Your task to perform on an android device: Search for the new Apple Watch on Best Buy Image 0: 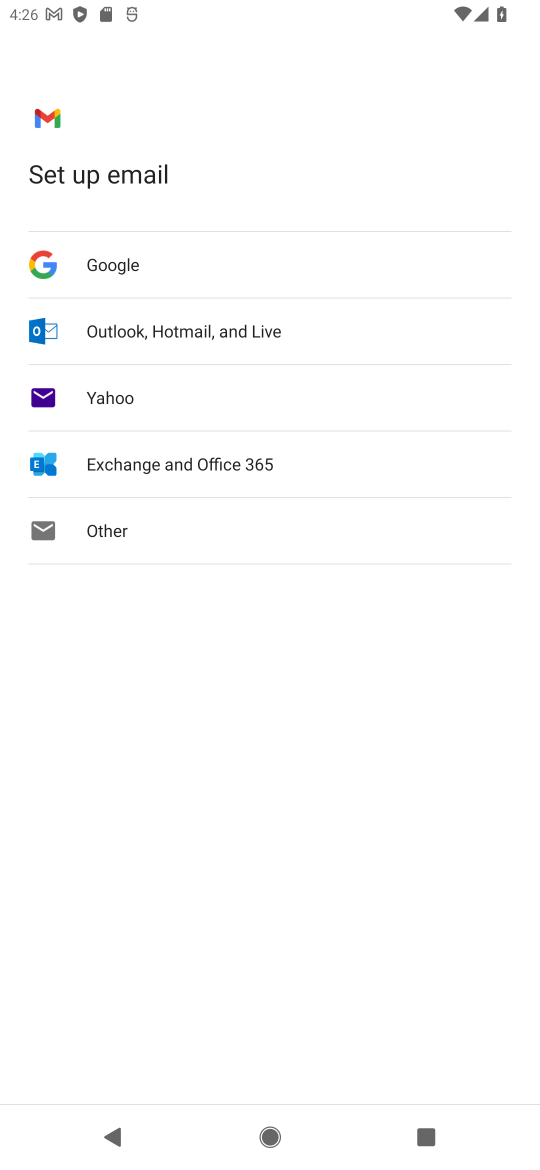
Step 0: press home button
Your task to perform on an android device: Search for the new Apple Watch on Best Buy Image 1: 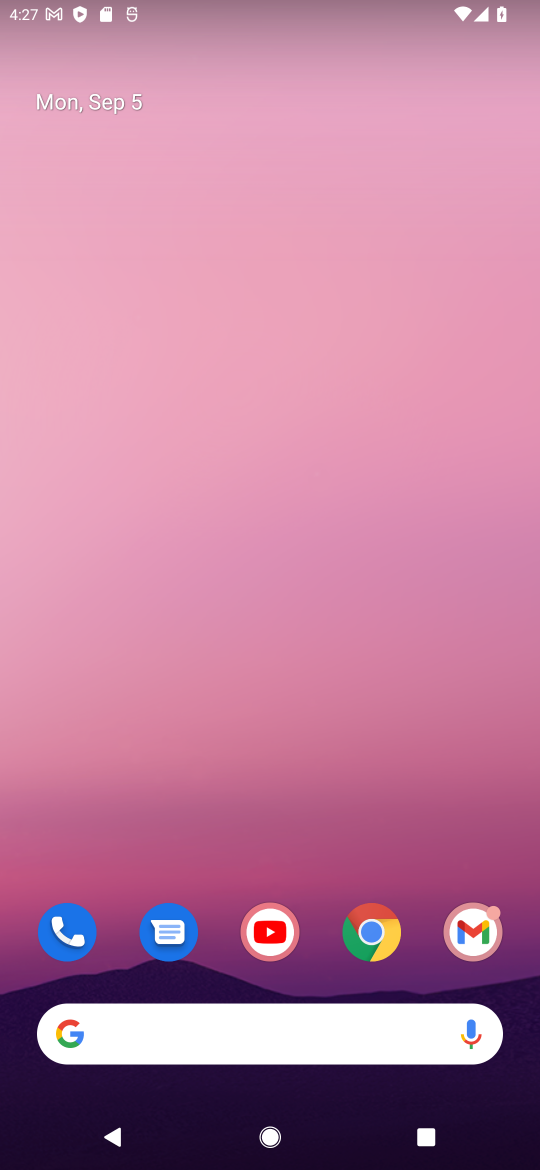
Step 1: drag from (297, 999) to (103, 14)
Your task to perform on an android device: Search for the new Apple Watch on Best Buy Image 2: 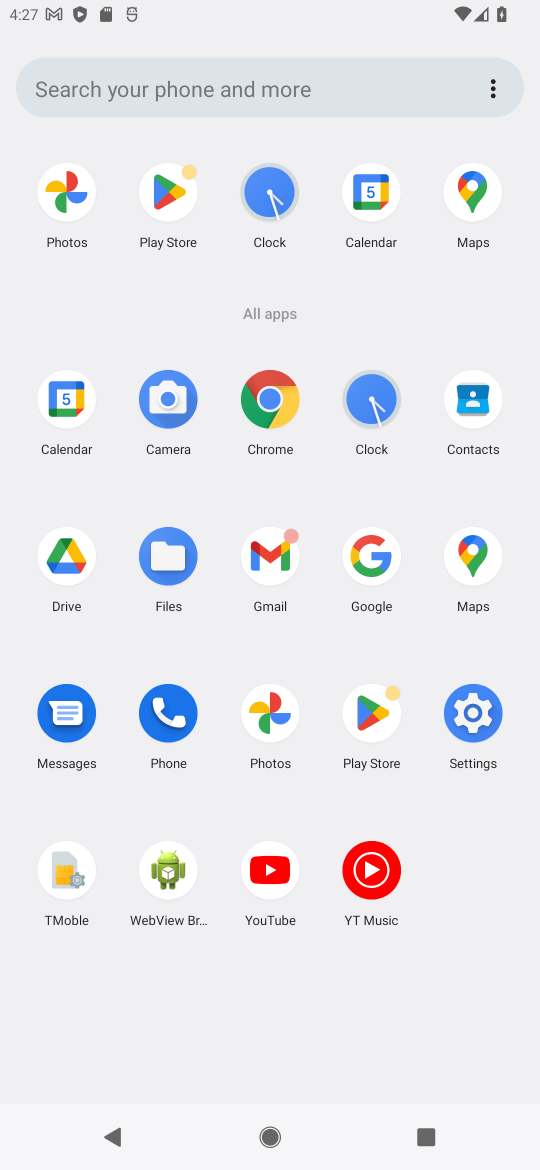
Step 2: click (364, 557)
Your task to perform on an android device: Search for the new Apple Watch on Best Buy Image 3: 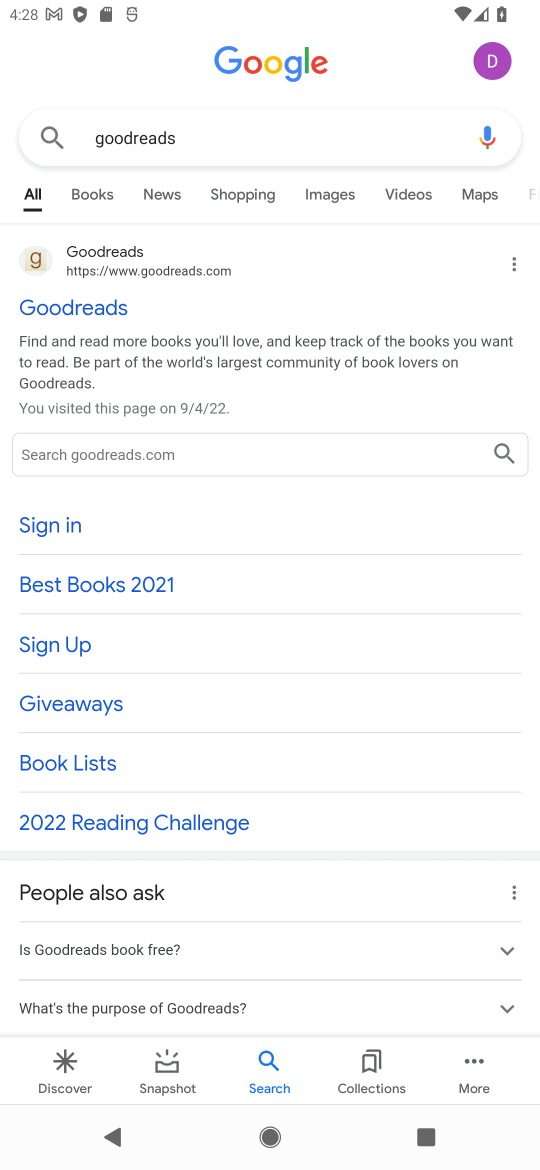
Step 3: click (265, 144)
Your task to perform on an android device: Search for the new Apple Watch on Best Buy Image 4: 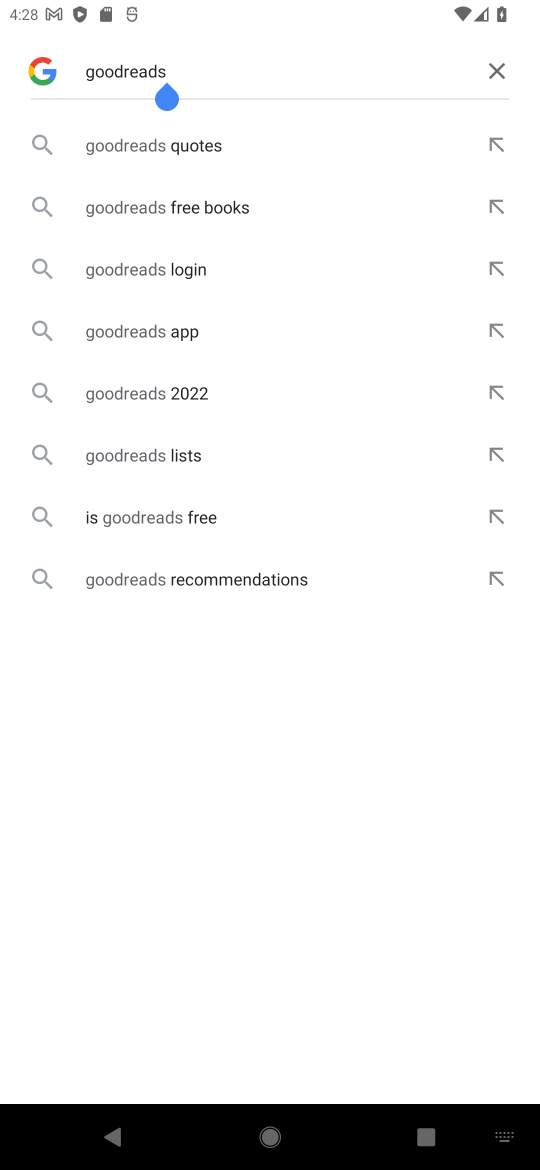
Step 4: click (492, 72)
Your task to perform on an android device: Search for the new Apple Watch on Best Buy Image 5: 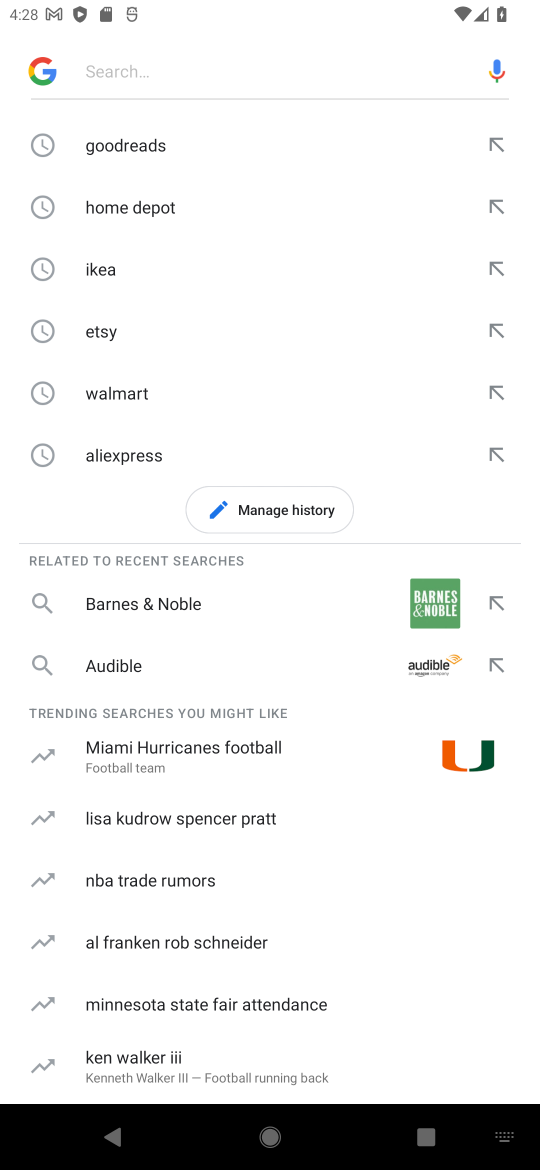
Step 5: type "Best Buy"
Your task to perform on an android device: Search for the new Apple Watch on Best Buy Image 6: 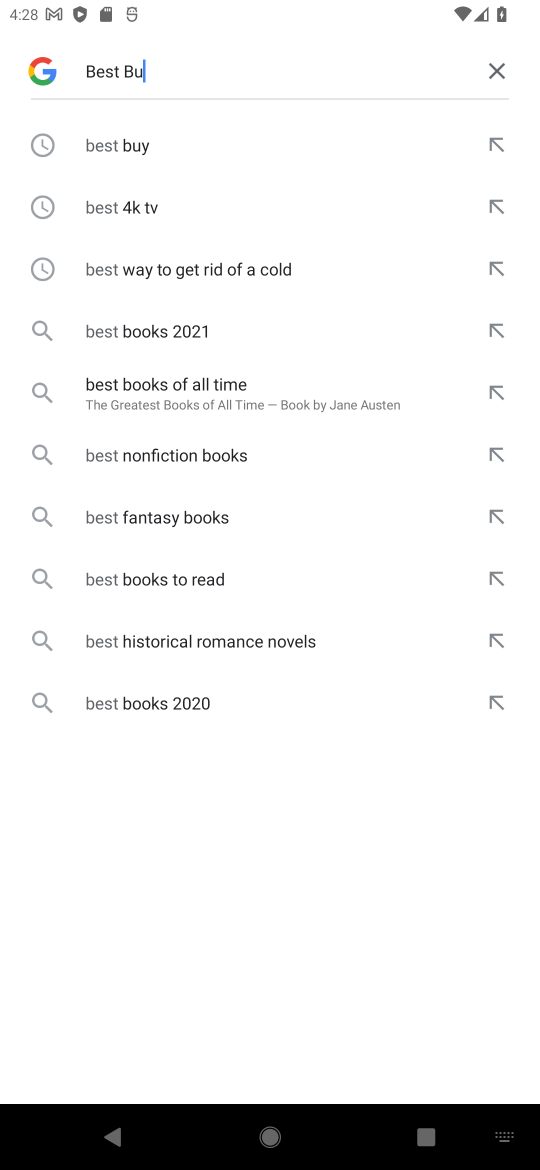
Step 6: type ""
Your task to perform on an android device: Search for the new Apple Watch on Best Buy Image 7: 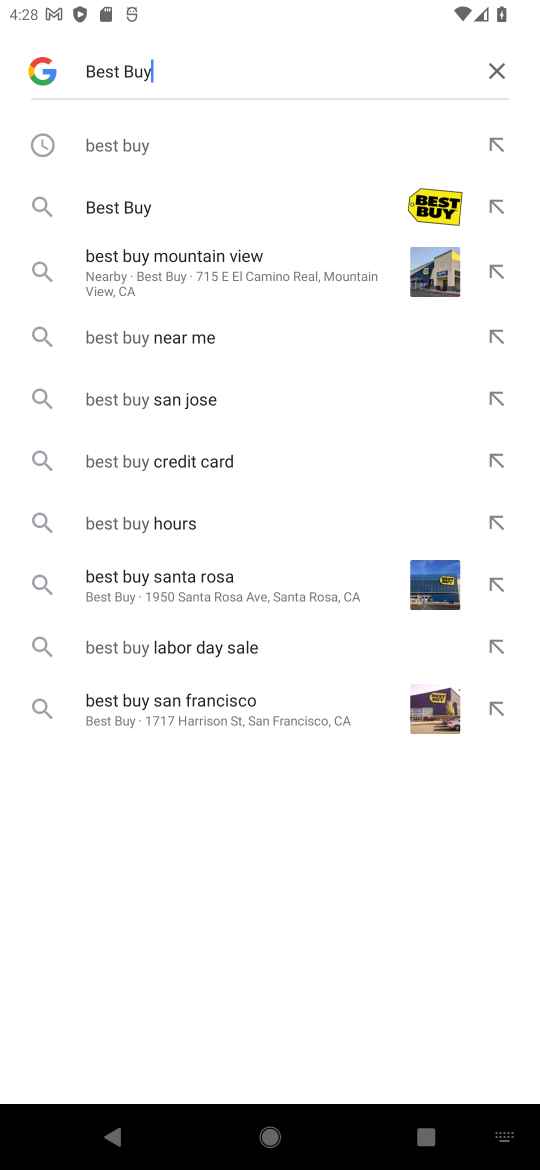
Step 7: click (111, 150)
Your task to perform on an android device: Search for the new Apple Watch on Best Buy Image 8: 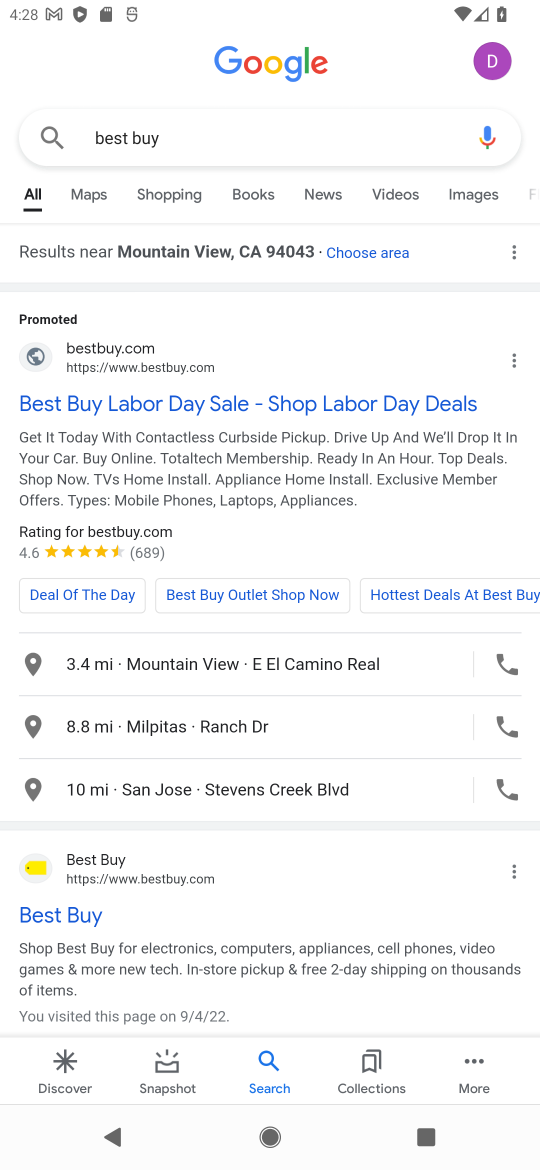
Step 8: click (37, 915)
Your task to perform on an android device: Search for the new Apple Watch on Best Buy Image 9: 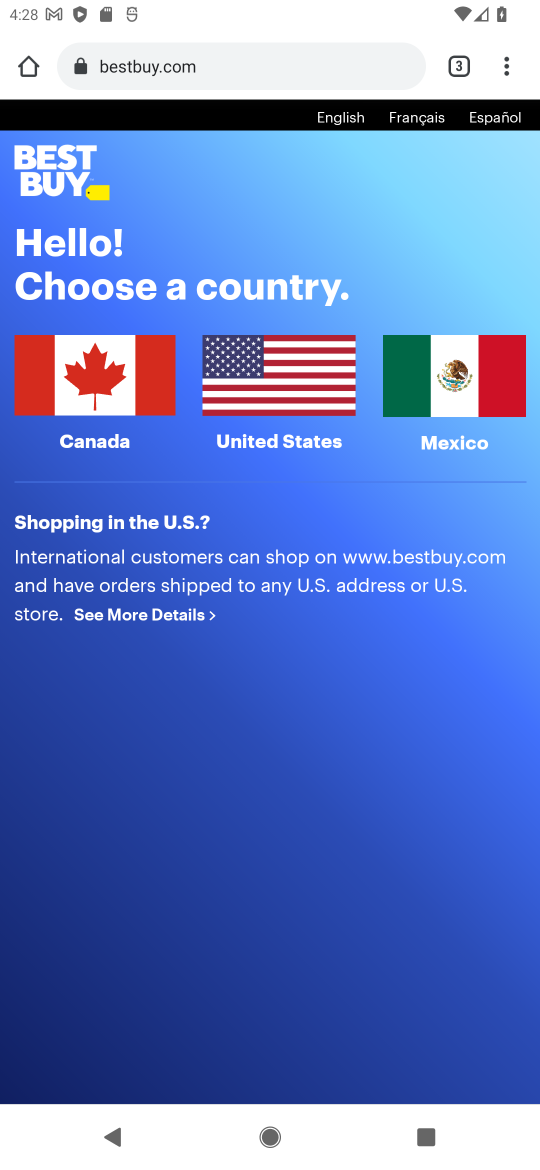
Step 9: click (282, 371)
Your task to perform on an android device: Search for the new Apple Watch on Best Buy Image 10: 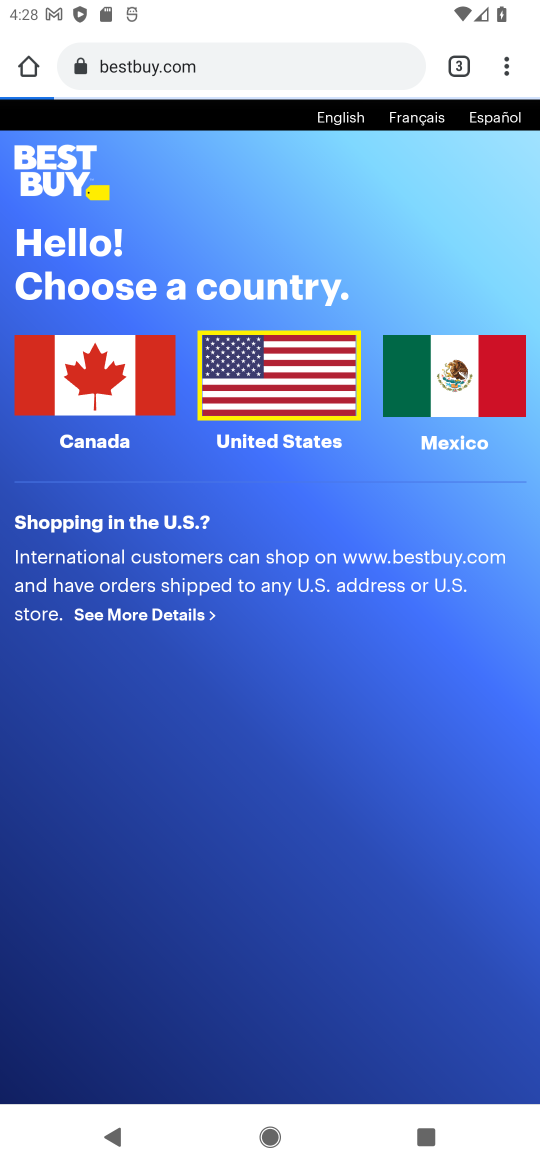
Step 10: click (252, 381)
Your task to perform on an android device: Search for the new Apple Watch on Best Buy Image 11: 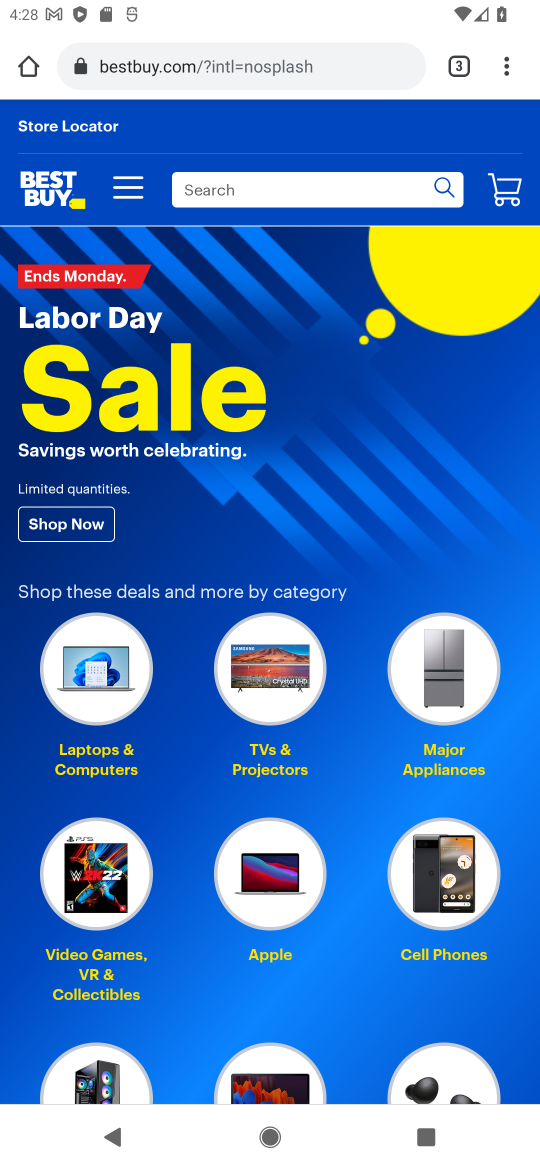
Step 11: click (245, 189)
Your task to perform on an android device: Search for the new Apple Watch on Best Buy Image 12: 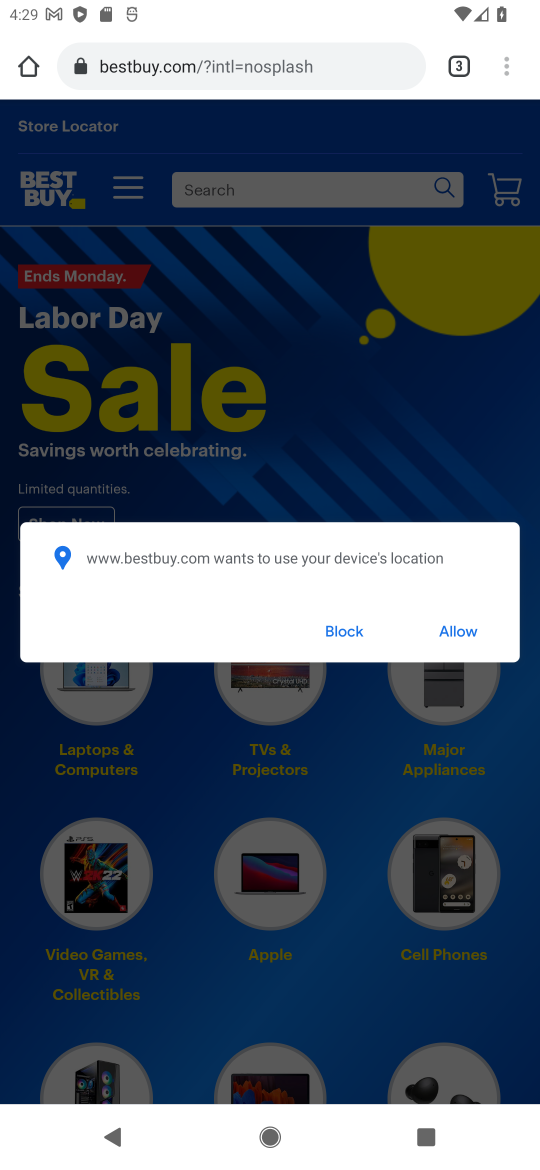
Step 12: click (333, 630)
Your task to perform on an android device: Search for the new Apple Watch on Best Buy Image 13: 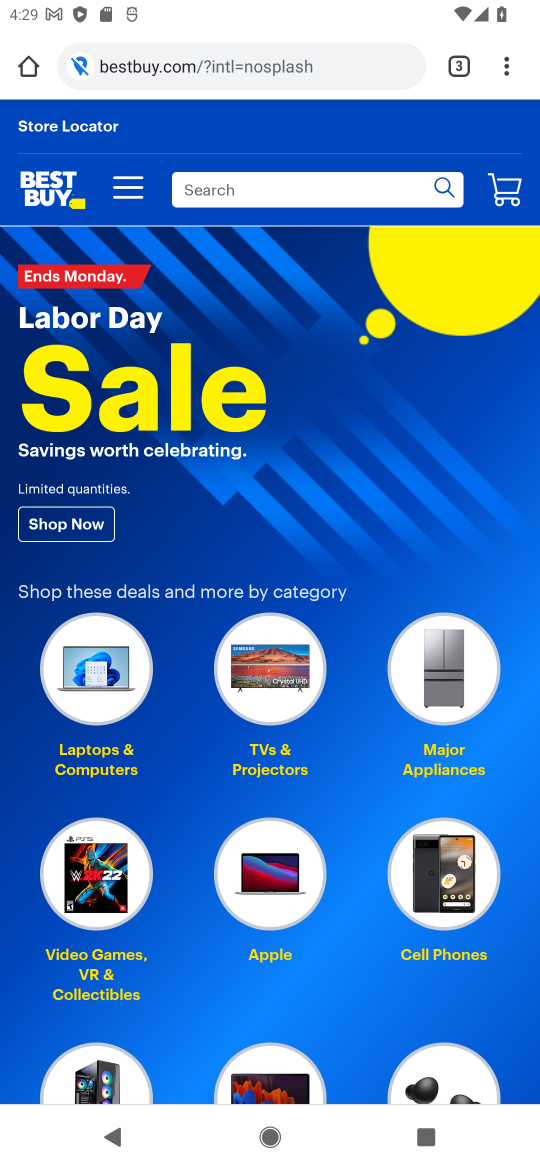
Step 13: click (290, 194)
Your task to perform on an android device: Search for the new Apple Watch on Best Buy Image 14: 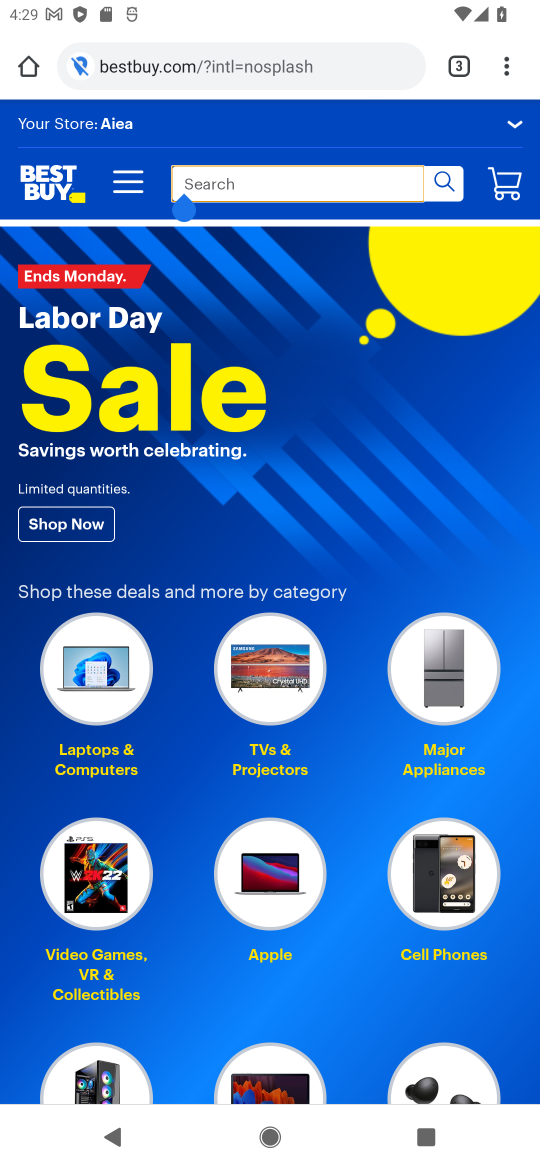
Step 14: type " new Apple Watch"
Your task to perform on an android device: Search for the new Apple Watch on Best Buy Image 15: 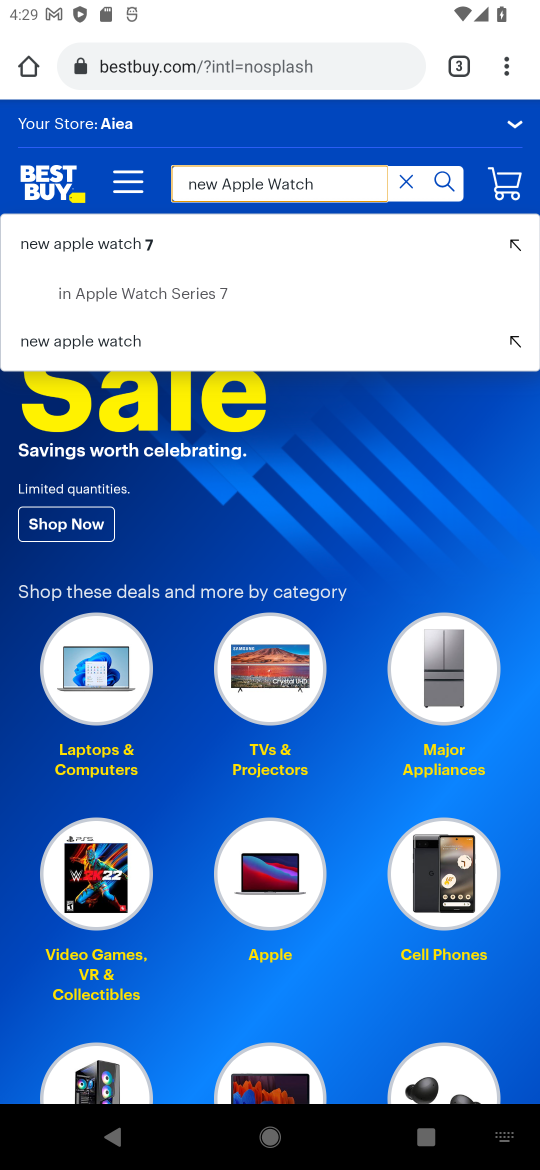
Step 15: click (136, 244)
Your task to perform on an android device: Search for the new Apple Watch on Best Buy Image 16: 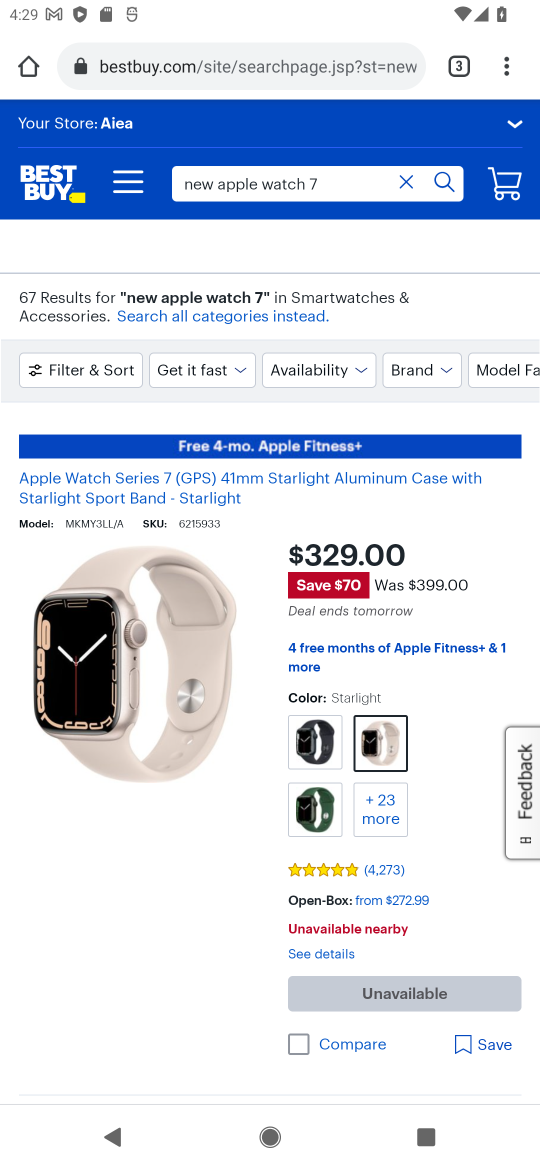
Step 16: task complete